Your task to perform on an android device: When is my next appointment? Image 0: 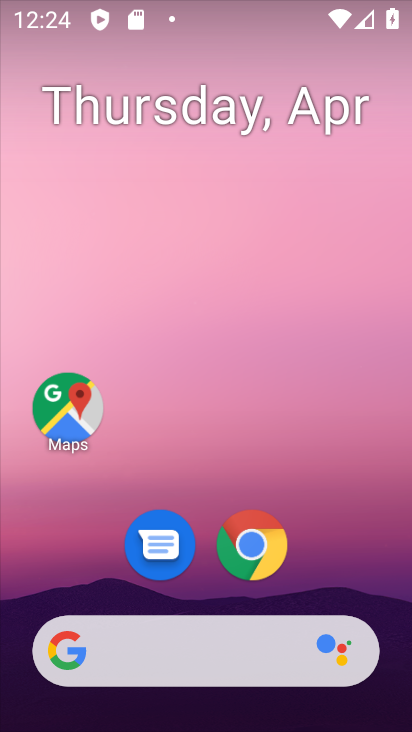
Step 0: drag from (351, 544) to (321, 51)
Your task to perform on an android device: When is my next appointment? Image 1: 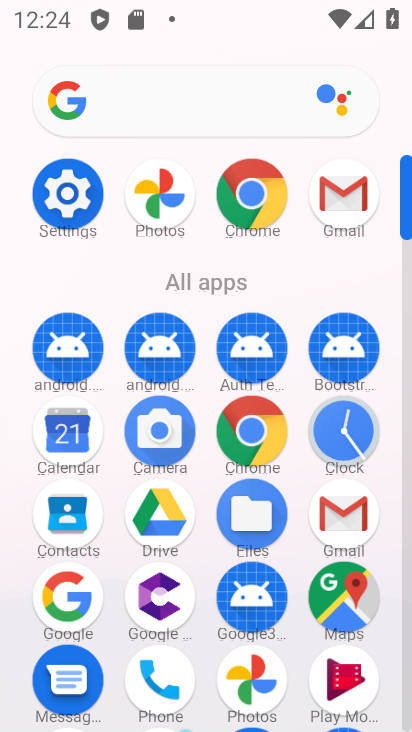
Step 1: drag from (289, 559) to (315, 309)
Your task to perform on an android device: When is my next appointment? Image 2: 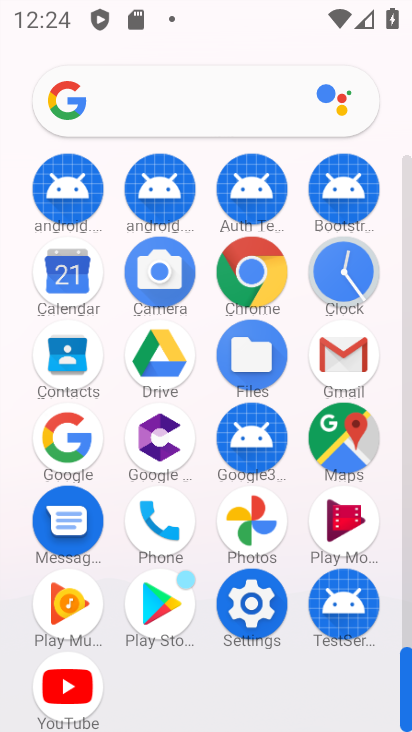
Step 2: click (85, 276)
Your task to perform on an android device: When is my next appointment? Image 3: 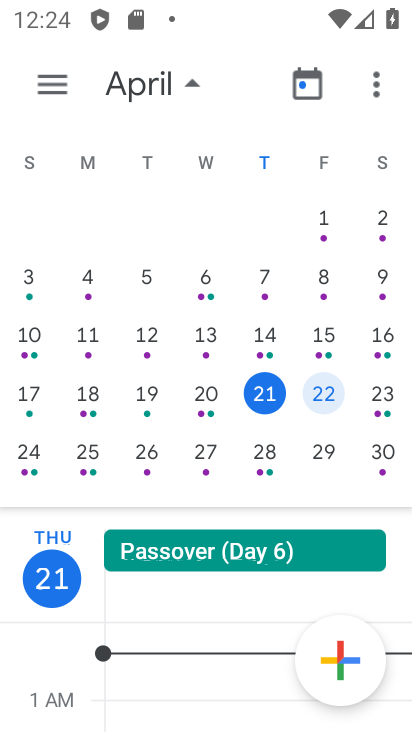
Step 3: click (320, 387)
Your task to perform on an android device: When is my next appointment? Image 4: 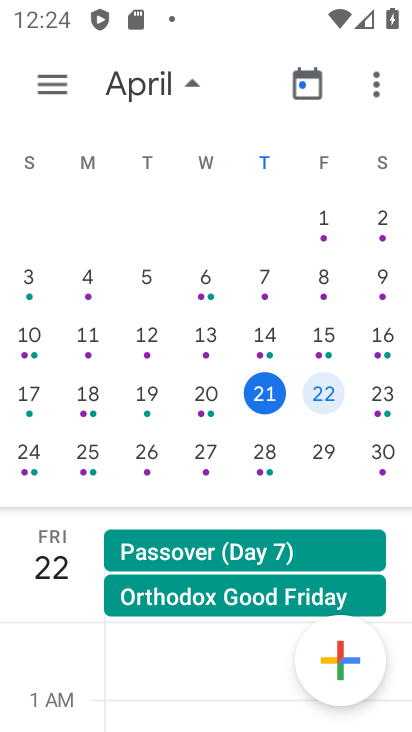
Step 4: task complete